Your task to perform on an android device: change the clock display to analog Image 0: 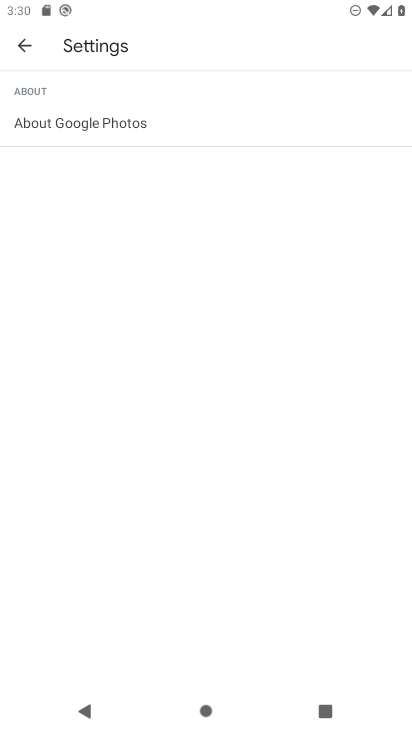
Step 0: drag from (239, 583) to (283, 324)
Your task to perform on an android device: change the clock display to analog Image 1: 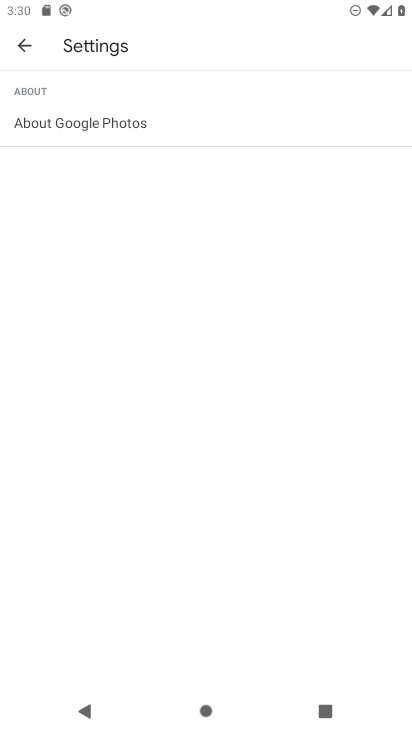
Step 1: press home button
Your task to perform on an android device: change the clock display to analog Image 2: 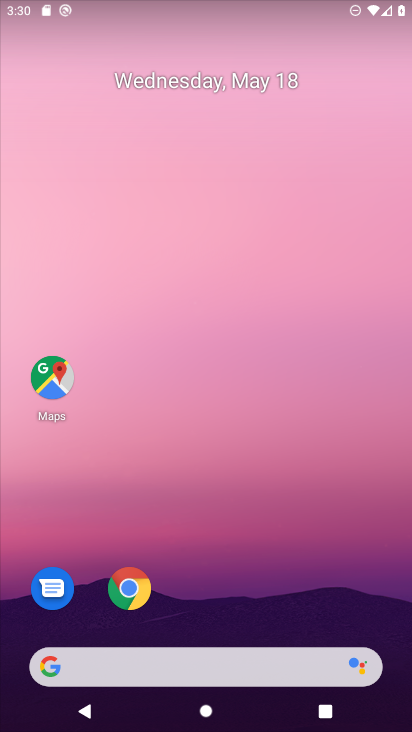
Step 2: drag from (264, 549) to (317, 11)
Your task to perform on an android device: change the clock display to analog Image 3: 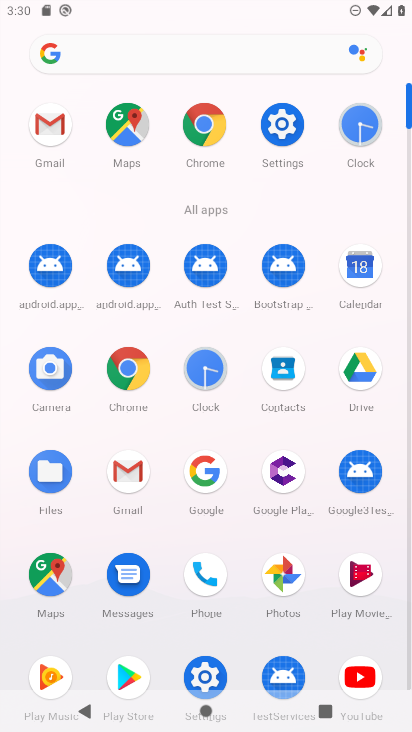
Step 3: click (224, 369)
Your task to perform on an android device: change the clock display to analog Image 4: 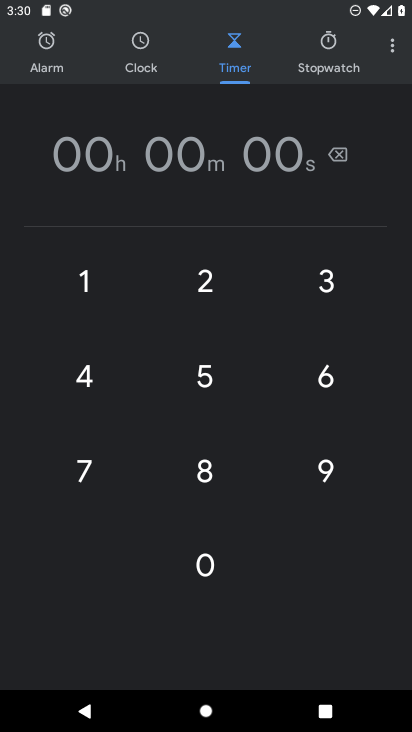
Step 4: click (385, 59)
Your task to perform on an android device: change the clock display to analog Image 5: 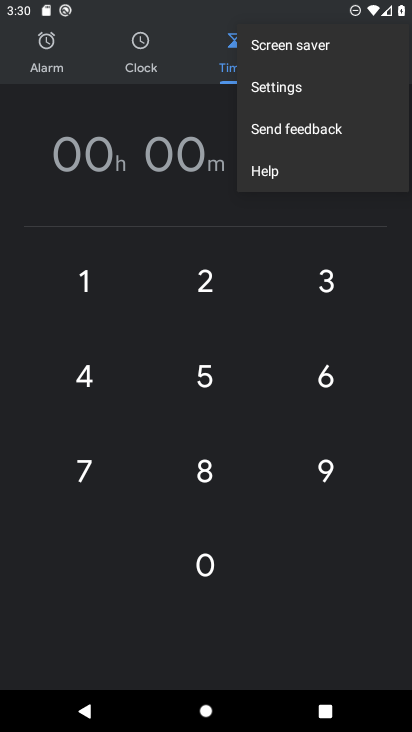
Step 5: click (313, 95)
Your task to perform on an android device: change the clock display to analog Image 6: 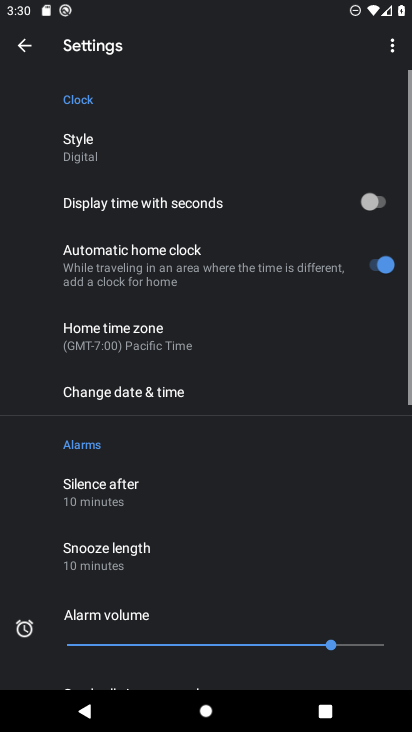
Step 6: click (148, 146)
Your task to perform on an android device: change the clock display to analog Image 7: 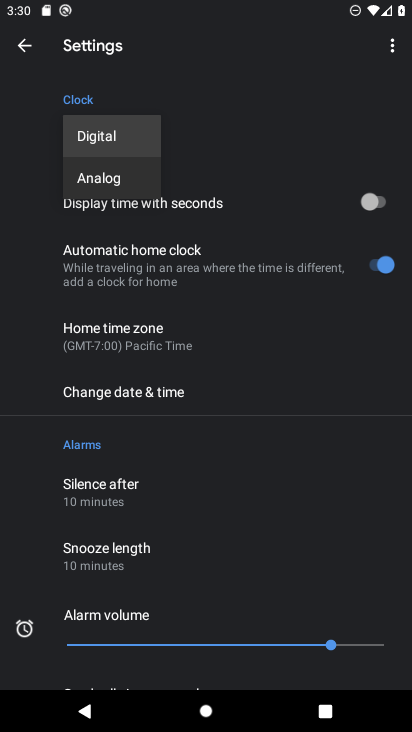
Step 7: click (124, 179)
Your task to perform on an android device: change the clock display to analog Image 8: 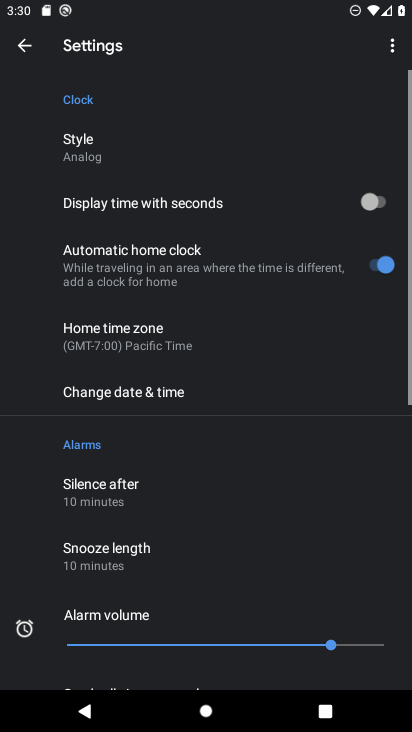
Step 8: task complete